Your task to perform on an android device: open chrome and create a bookmark for the current page Image 0: 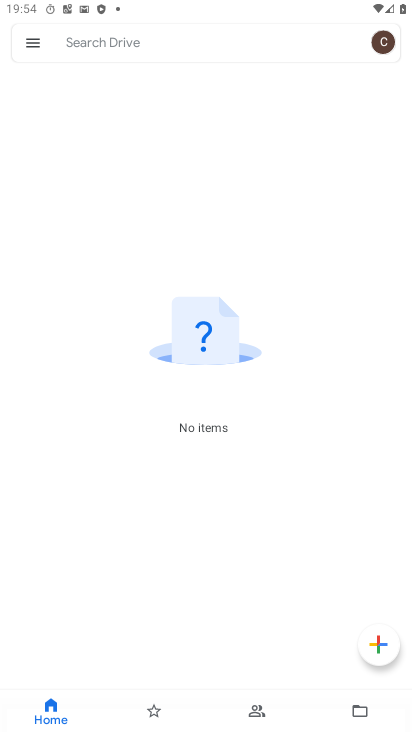
Step 0: press home button
Your task to perform on an android device: open chrome and create a bookmark for the current page Image 1: 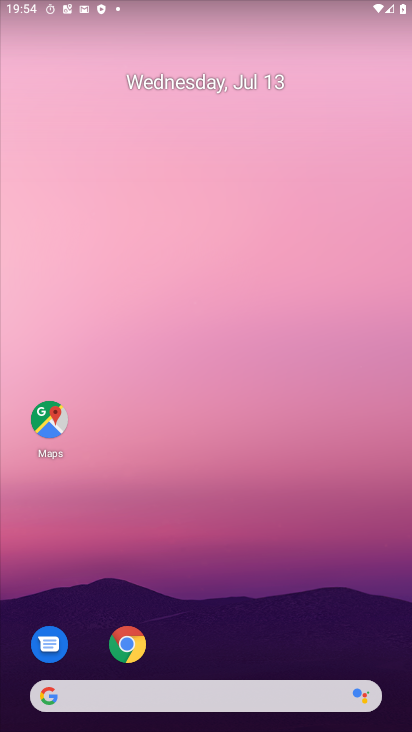
Step 1: click (128, 637)
Your task to perform on an android device: open chrome and create a bookmark for the current page Image 2: 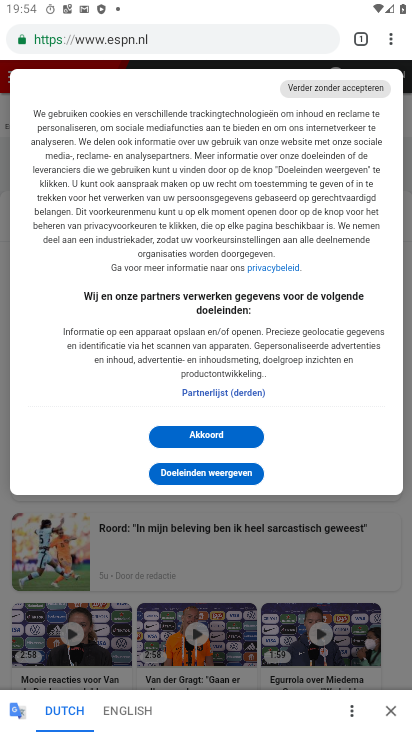
Step 2: click (391, 34)
Your task to perform on an android device: open chrome and create a bookmark for the current page Image 3: 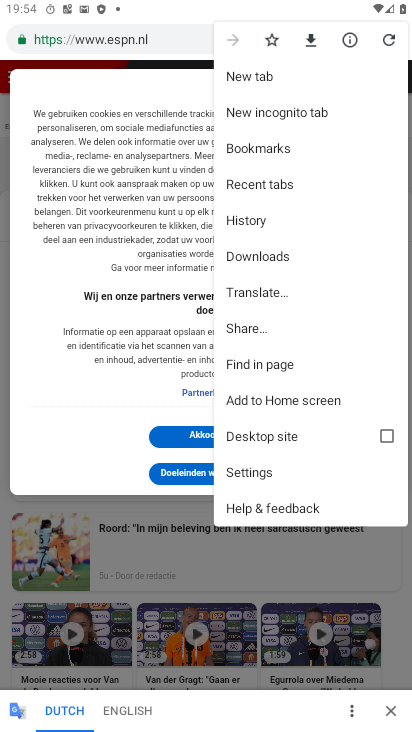
Step 3: click (268, 44)
Your task to perform on an android device: open chrome and create a bookmark for the current page Image 4: 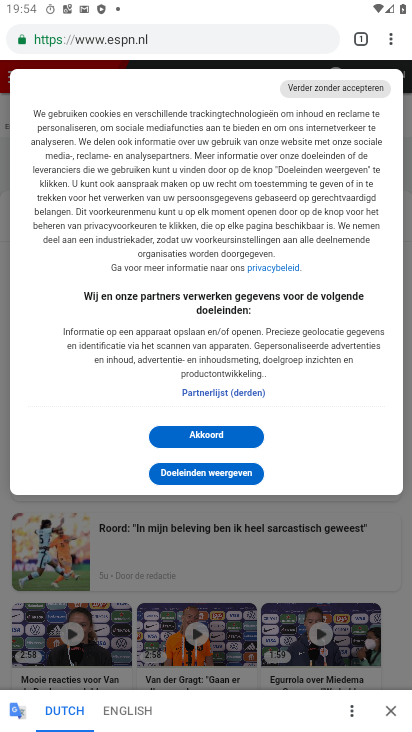
Step 4: task complete